Your task to perform on an android device: Open Google Chrome and click the shortcut for Amazon.com Image 0: 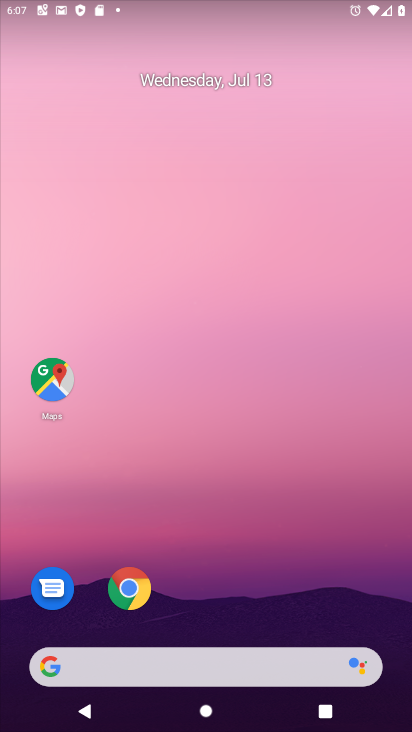
Step 0: drag from (88, 558) to (130, 591)
Your task to perform on an android device: Open Google Chrome and click the shortcut for Amazon.com Image 1: 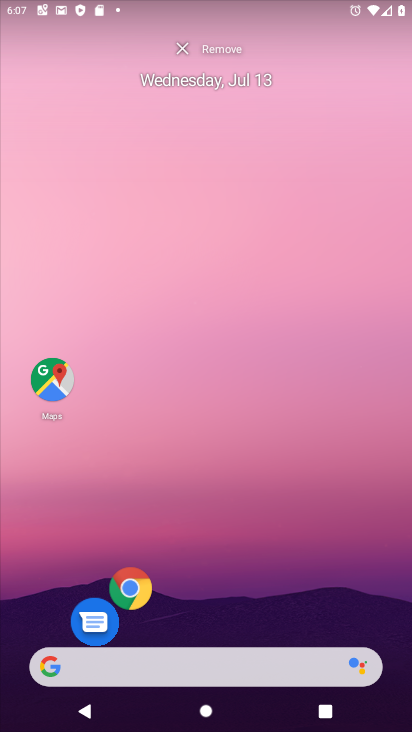
Step 1: click (130, 591)
Your task to perform on an android device: Open Google Chrome and click the shortcut for Amazon.com Image 2: 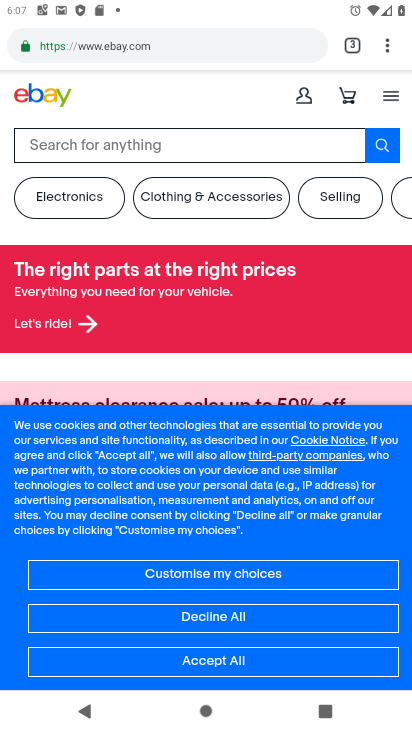
Step 2: click (389, 41)
Your task to perform on an android device: Open Google Chrome and click the shortcut for Amazon.com Image 3: 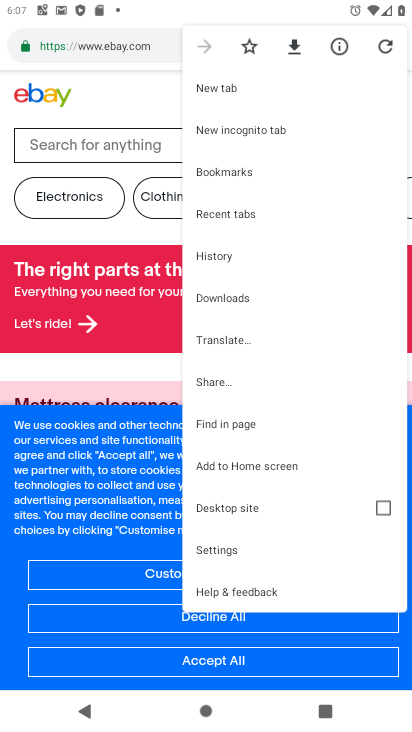
Step 3: click (214, 89)
Your task to perform on an android device: Open Google Chrome and click the shortcut for Amazon.com Image 4: 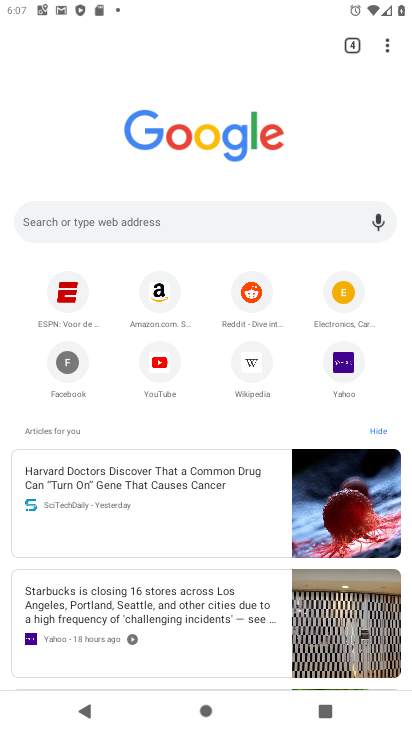
Step 4: click (161, 294)
Your task to perform on an android device: Open Google Chrome and click the shortcut for Amazon.com Image 5: 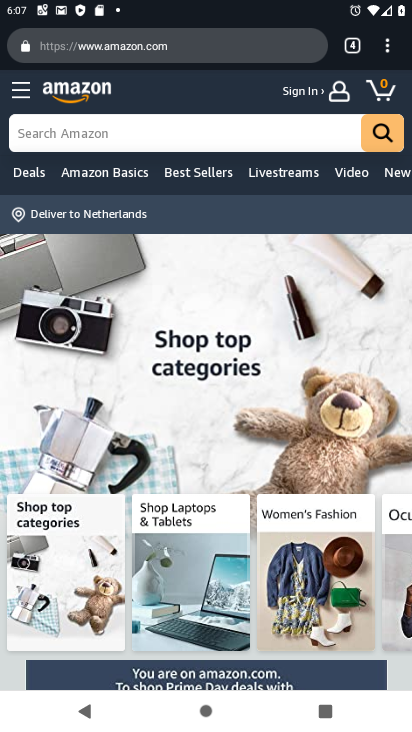
Step 5: task complete